Your task to perform on an android device: Open network settings Image 0: 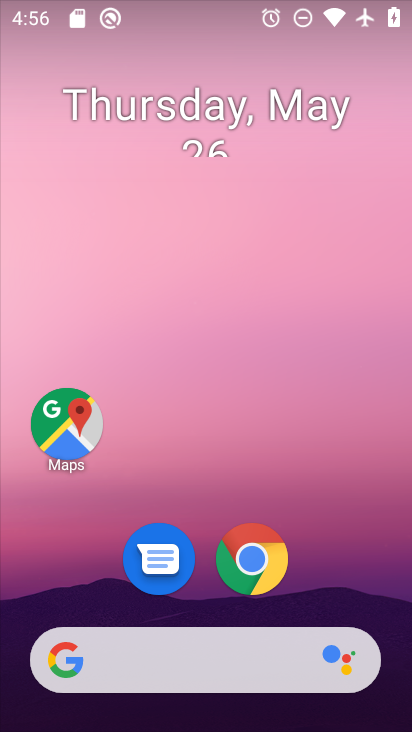
Step 0: drag from (343, 576) to (173, 40)
Your task to perform on an android device: Open network settings Image 1: 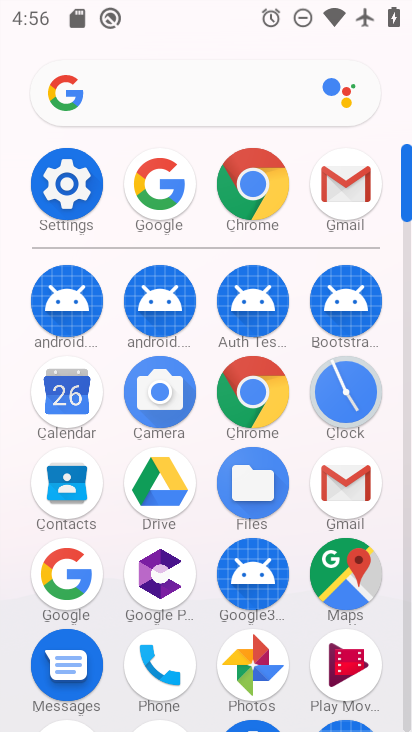
Step 1: click (68, 186)
Your task to perform on an android device: Open network settings Image 2: 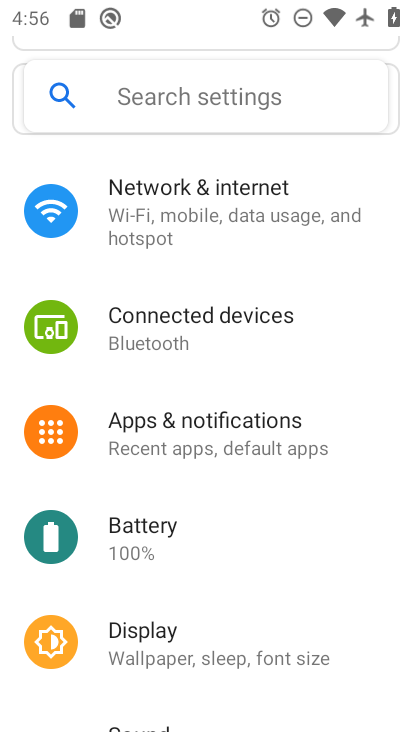
Step 2: click (245, 220)
Your task to perform on an android device: Open network settings Image 3: 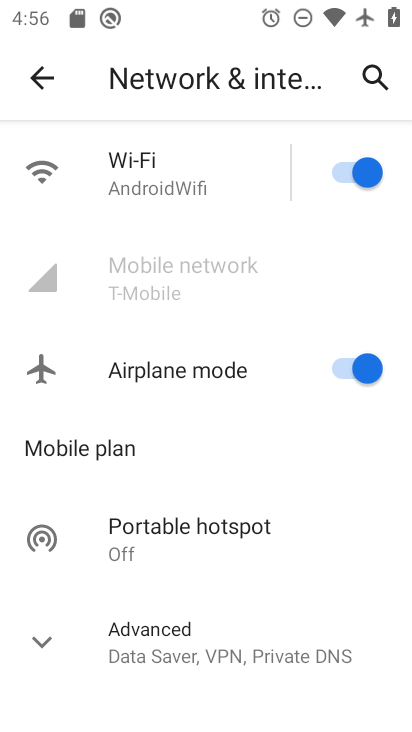
Step 3: task complete